Your task to perform on an android device: Open Amazon Image 0: 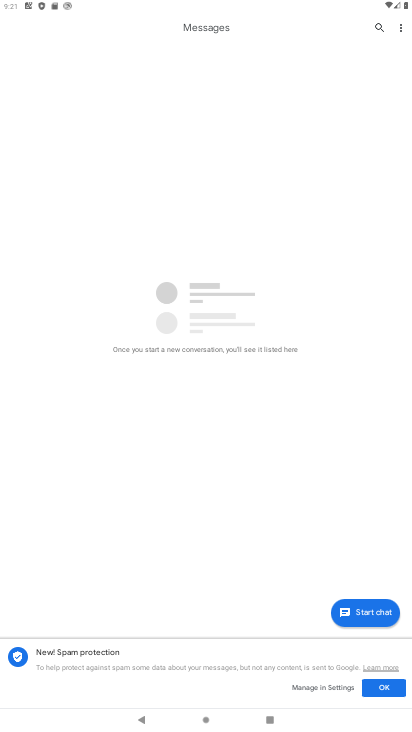
Step 0: press home button
Your task to perform on an android device: Open Amazon Image 1: 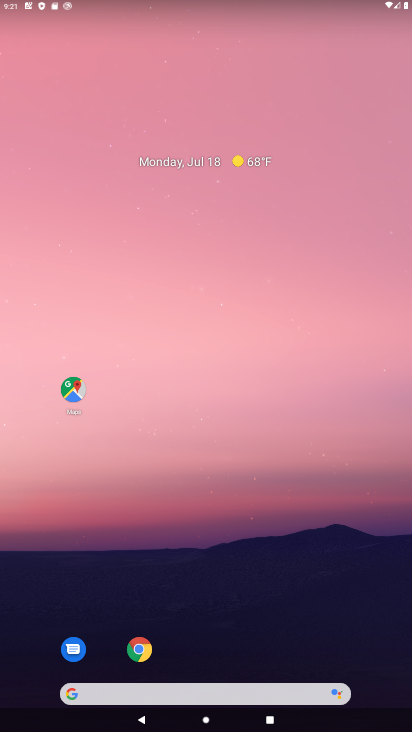
Step 1: click (140, 656)
Your task to perform on an android device: Open Amazon Image 2: 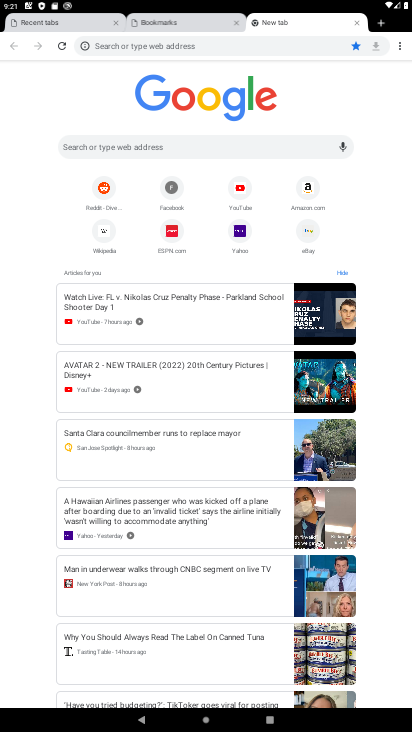
Step 2: click (308, 187)
Your task to perform on an android device: Open Amazon Image 3: 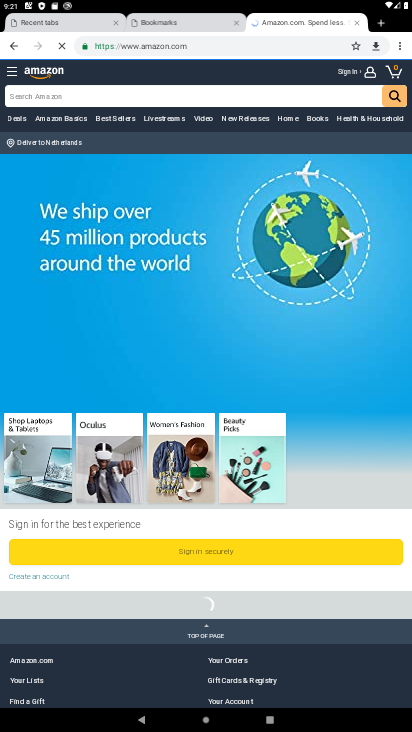
Step 3: task complete